Your task to perform on an android device: Open accessibility settings Image 0: 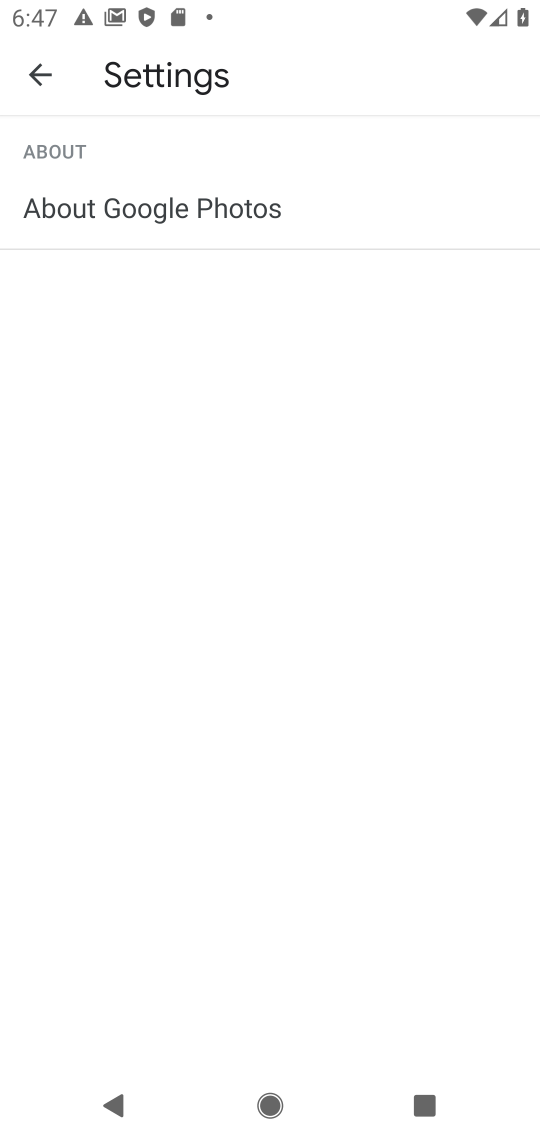
Step 0: press home button
Your task to perform on an android device: Open accessibility settings Image 1: 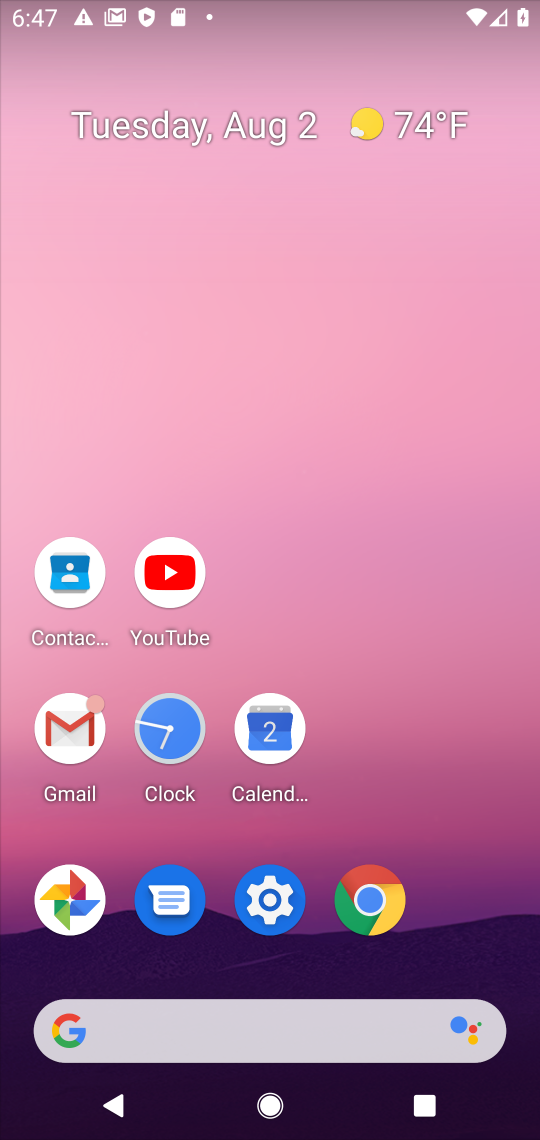
Step 1: click (268, 895)
Your task to perform on an android device: Open accessibility settings Image 2: 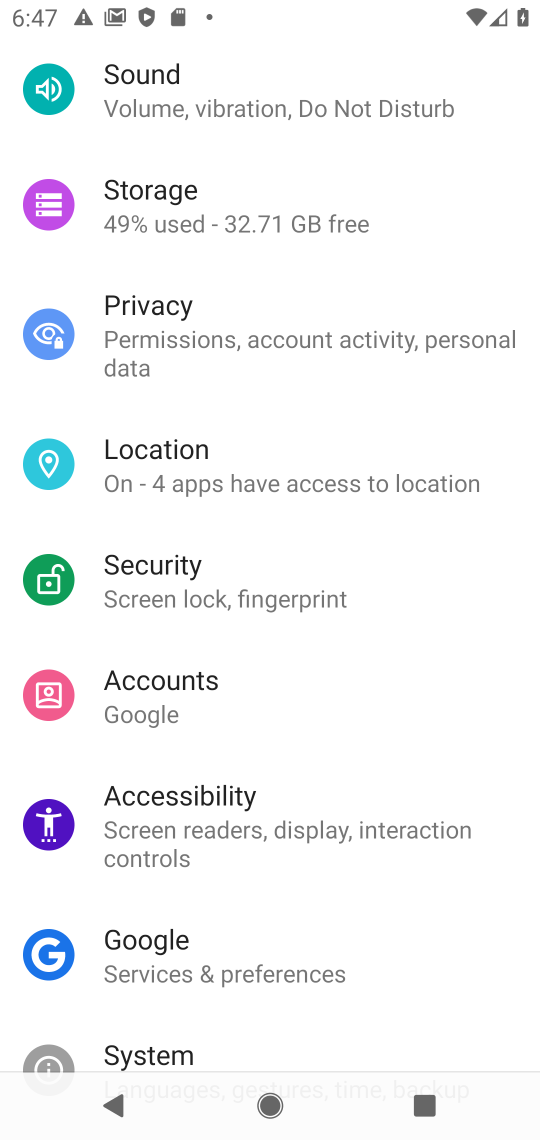
Step 2: click (207, 792)
Your task to perform on an android device: Open accessibility settings Image 3: 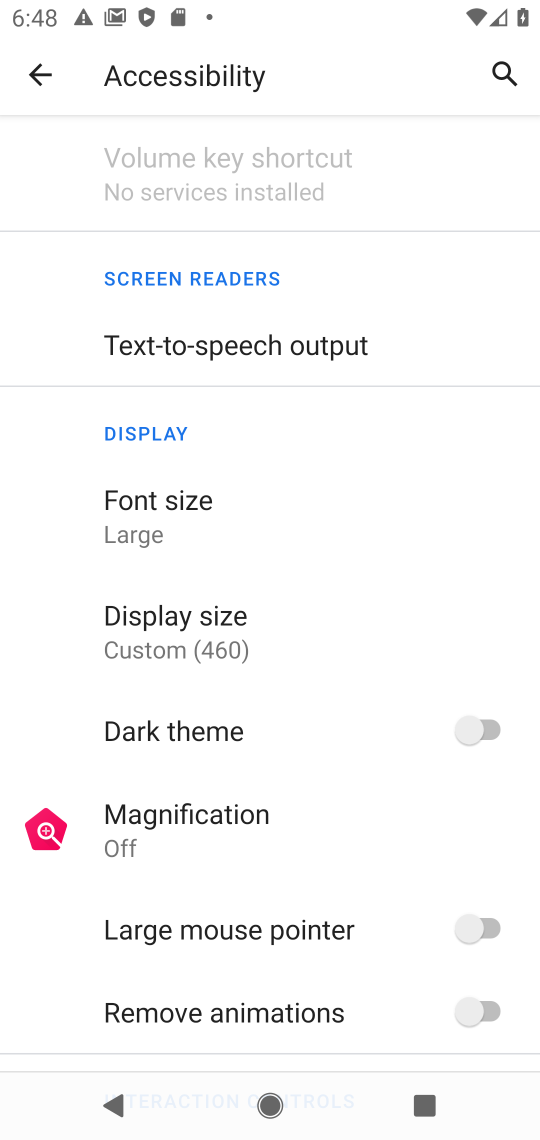
Step 3: task complete